Your task to perform on an android device: choose inbox layout in the gmail app Image 0: 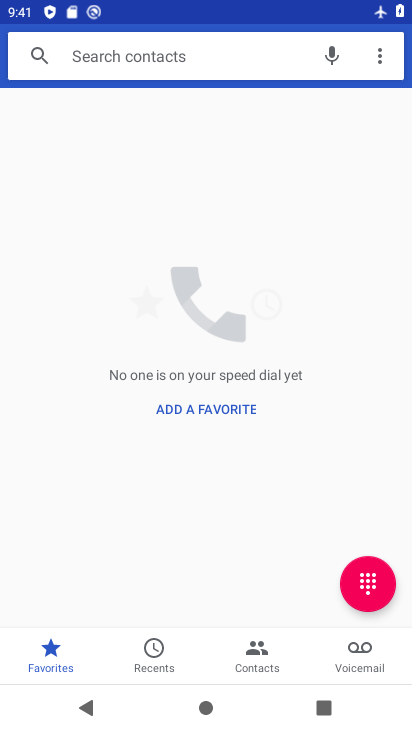
Step 0: press home button
Your task to perform on an android device: choose inbox layout in the gmail app Image 1: 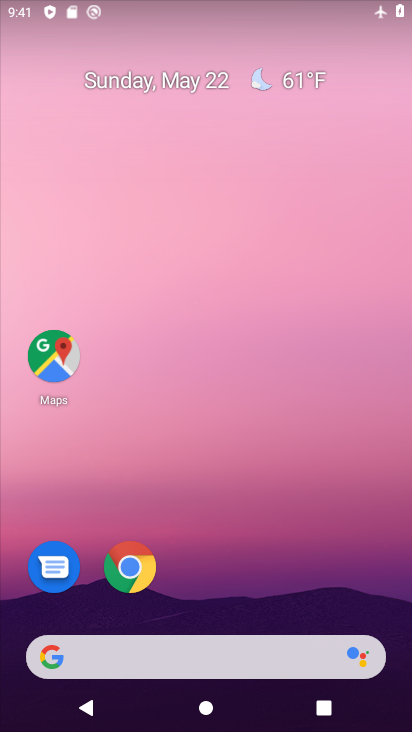
Step 1: drag from (225, 634) to (139, 0)
Your task to perform on an android device: choose inbox layout in the gmail app Image 2: 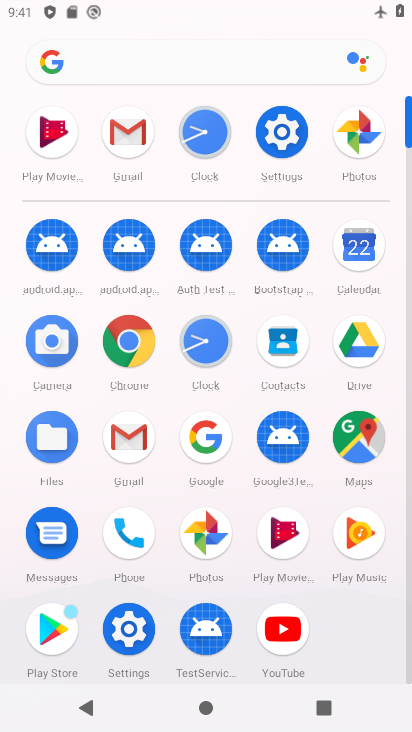
Step 2: click (125, 433)
Your task to perform on an android device: choose inbox layout in the gmail app Image 3: 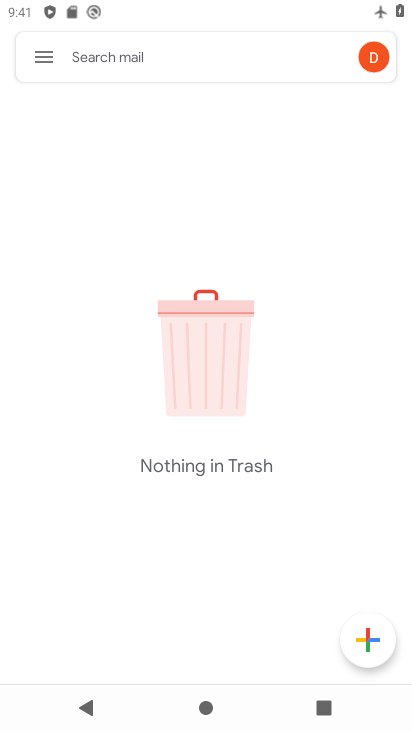
Step 3: click (40, 56)
Your task to perform on an android device: choose inbox layout in the gmail app Image 4: 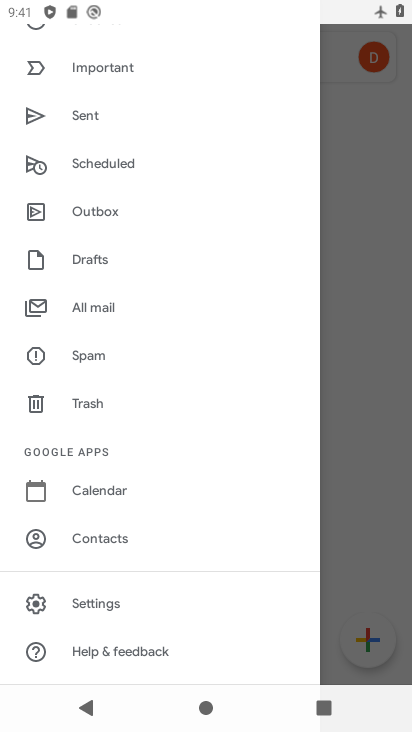
Step 4: drag from (104, 150) to (181, 703)
Your task to perform on an android device: choose inbox layout in the gmail app Image 5: 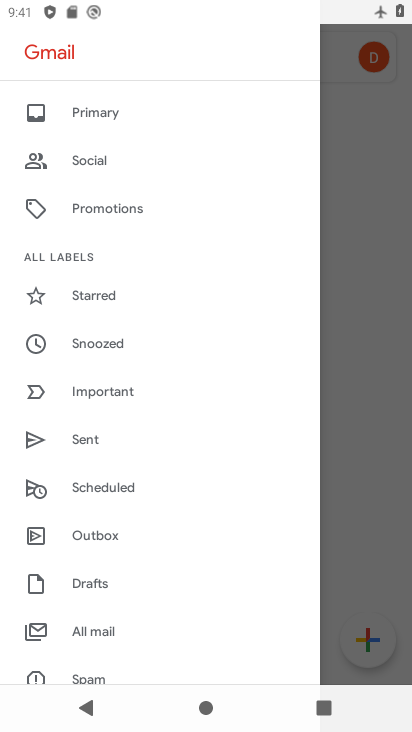
Step 5: drag from (186, 594) to (141, 200)
Your task to perform on an android device: choose inbox layout in the gmail app Image 6: 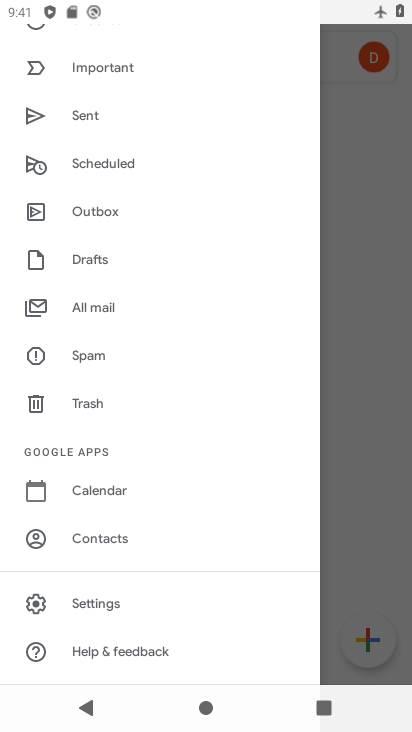
Step 6: click (108, 597)
Your task to perform on an android device: choose inbox layout in the gmail app Image 7: 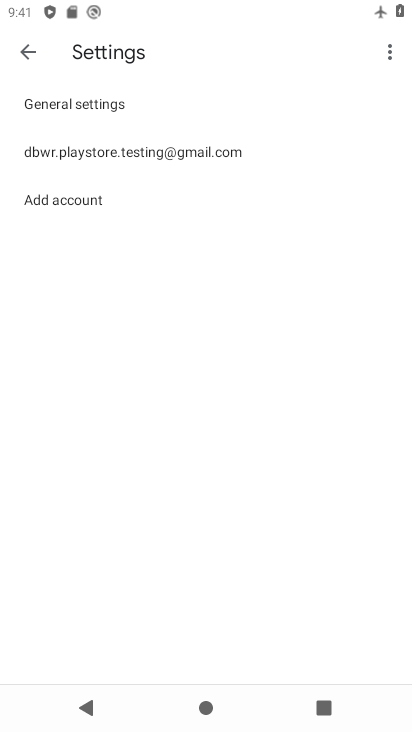
Step 7: click (50, 151)
Your task to perform on an android device: choose inbox layout in the gmail app Image 8: 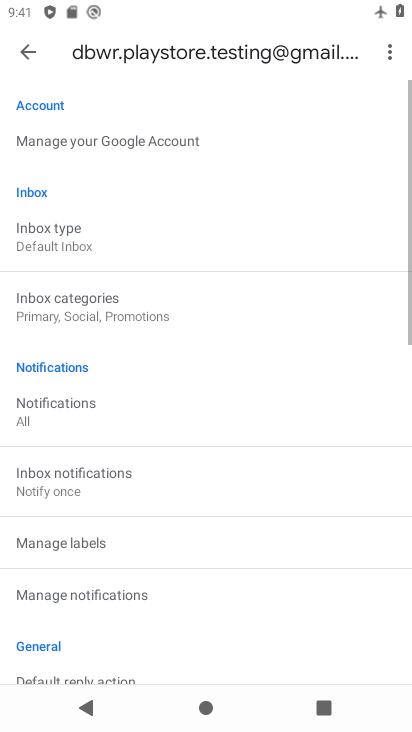
Step 8: click (51, 242)
Your task to perform on an android device: choose inbox layout in the gmail app Image 9: 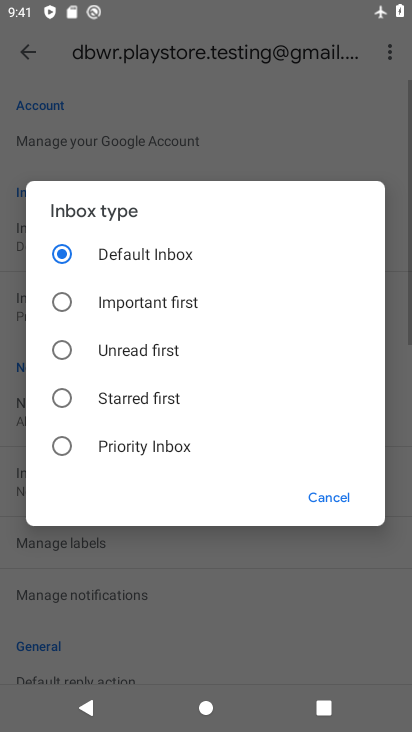
Step 9: click (124, 454)
Your task to perform on an android device: choose inbox layout in the gmail app Image 10: 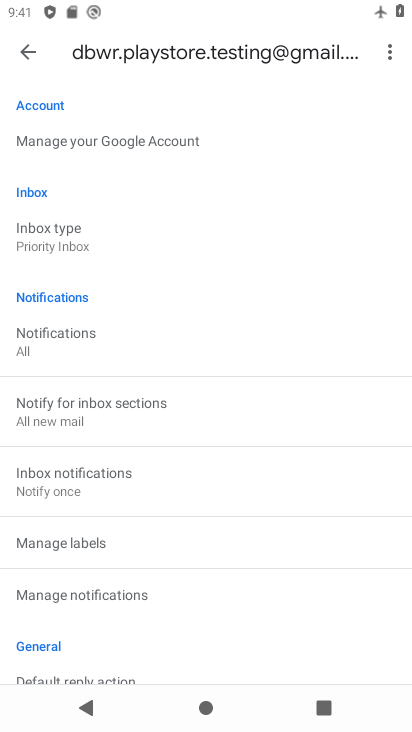
Step 10: click (19, 46)
Your task to perform on an android device: choose inbox layout in the gmail app Image 11: 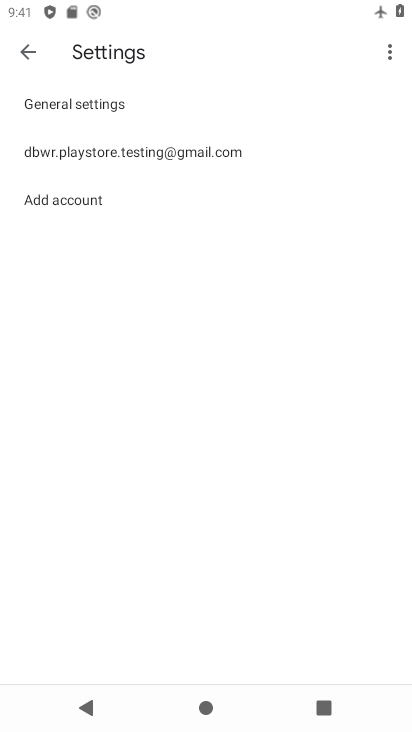
Step 11: click (21, 48)
Your task to perform on an android device: choose inbox layout in the gmail app Image 12: 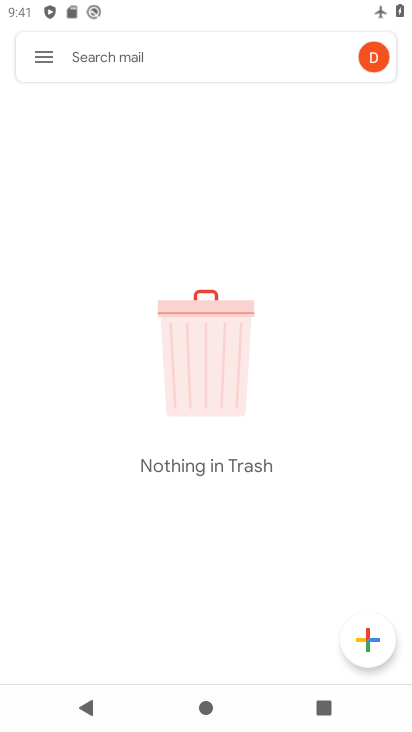
Step 12: click (43, 61)
Your task to perform on an android device: choose inbox layout in the gmail app Image 13: 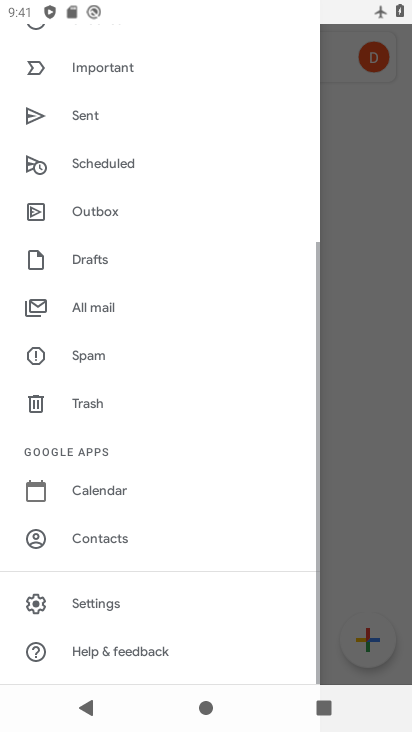
Step 13: drag from (89, 115) to (159, 651)
Your task to perform on an android device: choose inbox layout in the gmail app Image 14: 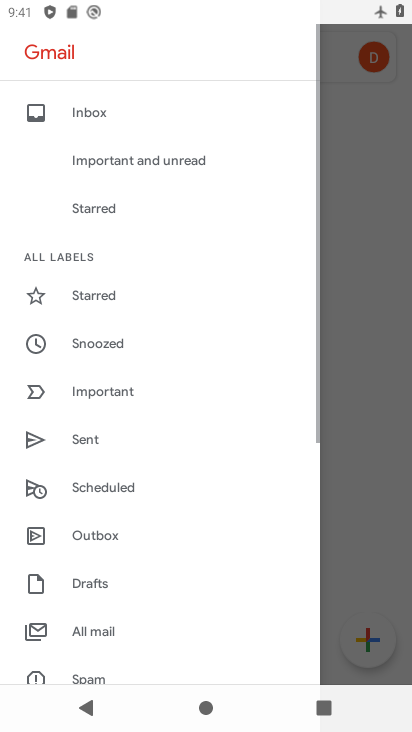
Step 14: click (103, 93)
Your task to perform on an android device: choose inbox layout in the gmail app Image 15: 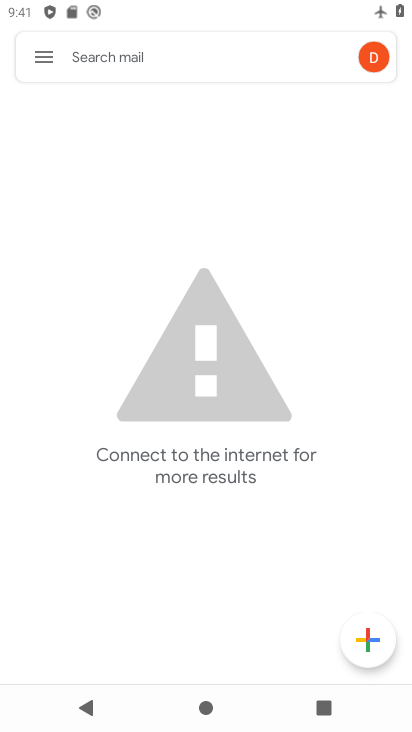
Step 15: task complete